Your task to perform on an android device: change the clock style Image 0: 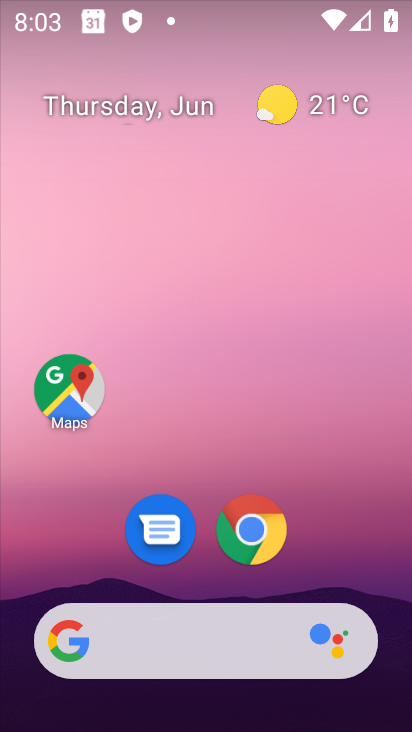
Step 0: drag from (387, 670) to (372, 197)
Your task to perform on an android device: change the clock style Image 1: 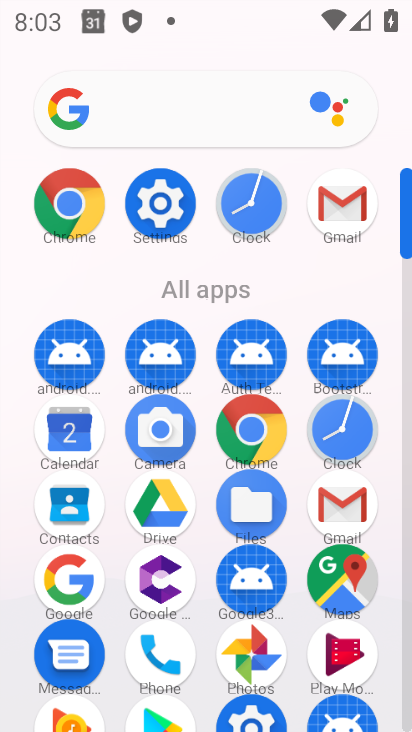
Step 1: click (335, 439)
Your task to perform on an android device: change the clock style Image 2: 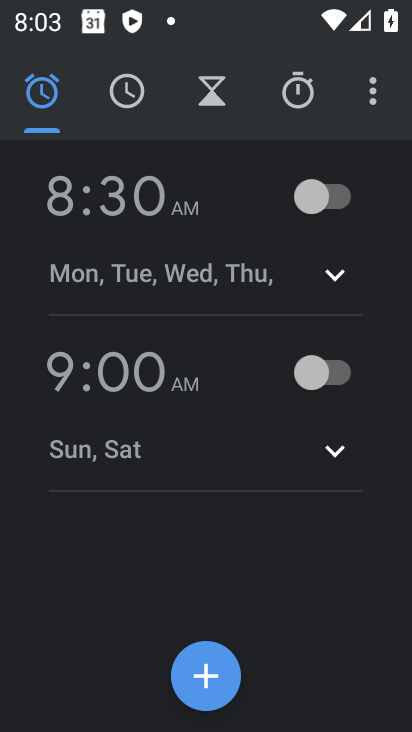
Step 2: click (370, 84)
Your task to perform on an android device: change the clock style Image 3: 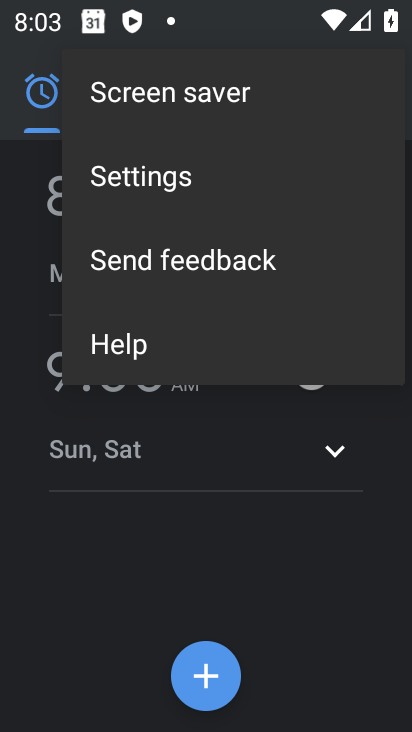
Step 3: click (125, 164)
Your task to perform on an android device: change the clock style Image 4: 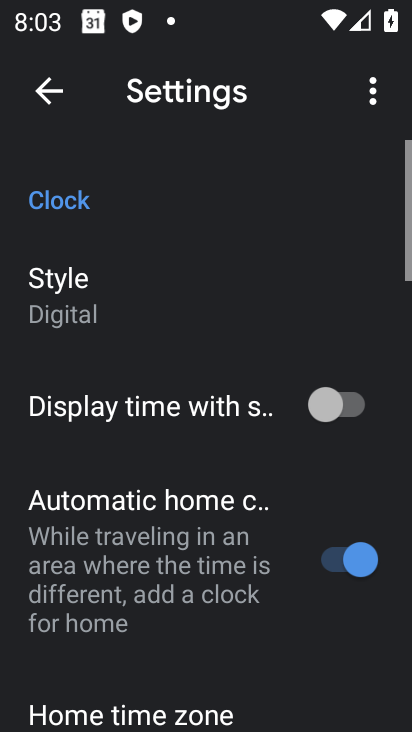
Step 4: click (69, 294)
Your task to perform on an android device: change the clock style Image 5: 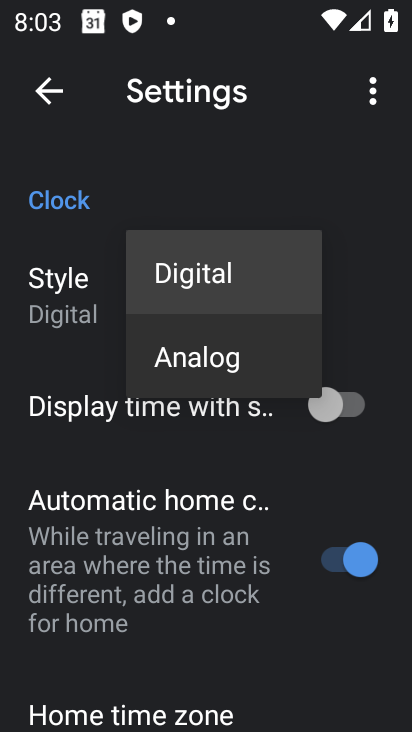
Step 5: click (167, 364)
Your task to perform on an android device: change the clock style Image 6: 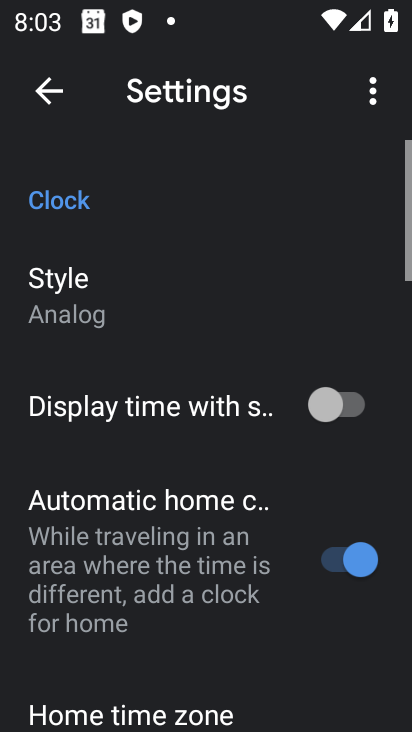
Step 6: task complete